Your task to perform on an android device: turn on sleep mode Image 0: 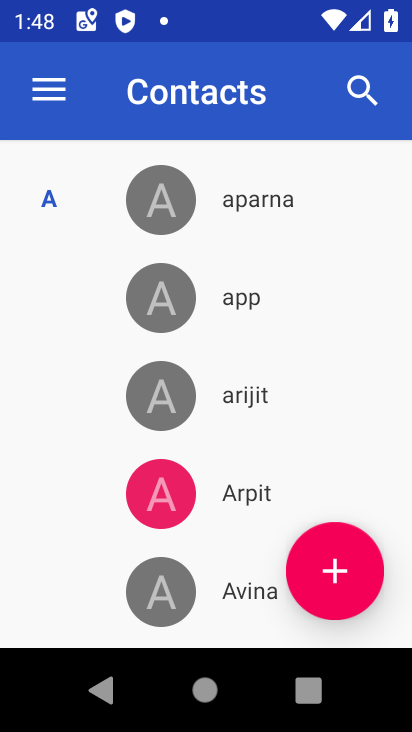
Step 0: press home button
Your task to perform on an android device: turn on sleep mode Image 1: 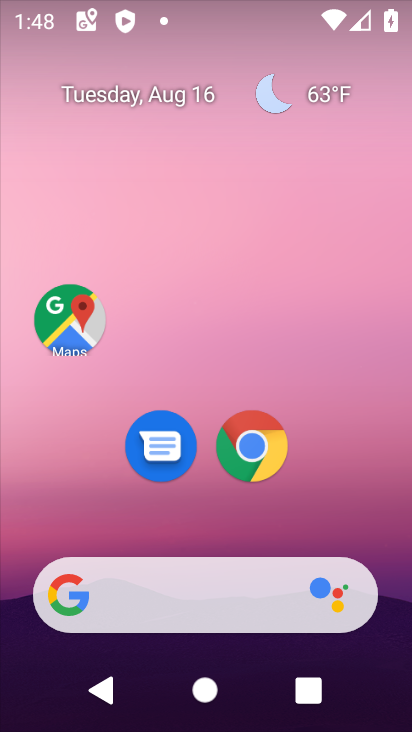
Step 1: drag from (204, 521) to (215, 18)
Your task to perform on an android device: turn on sleep mode Image 2: 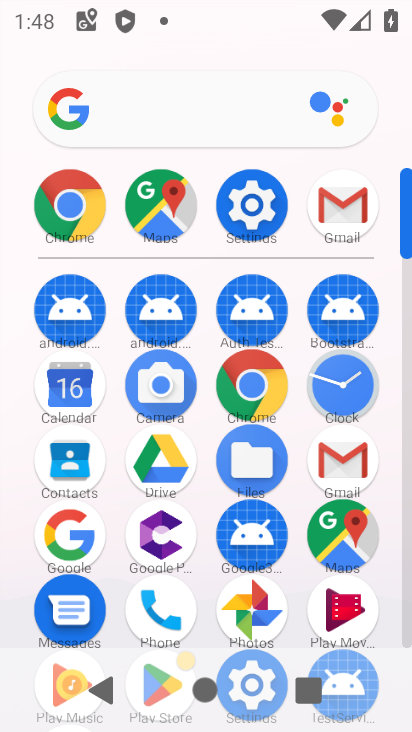
Step 2: click (247, 198)
Your task to perform on an android device: turn on sleep mode Image 3: 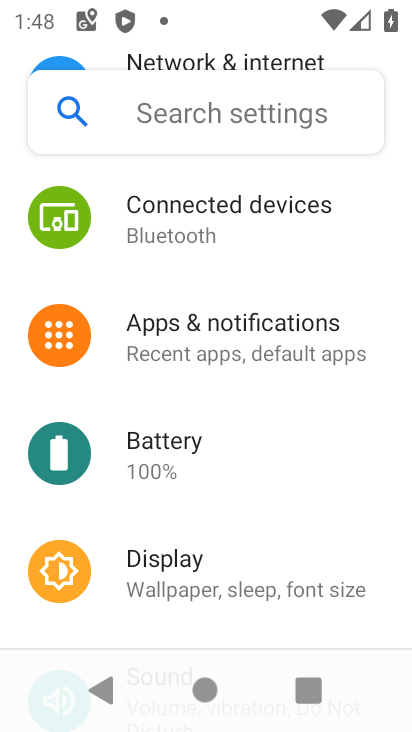
Step 3: click (106, 563)
Your task to perform on an android device: turn on sleep mode Image 4: 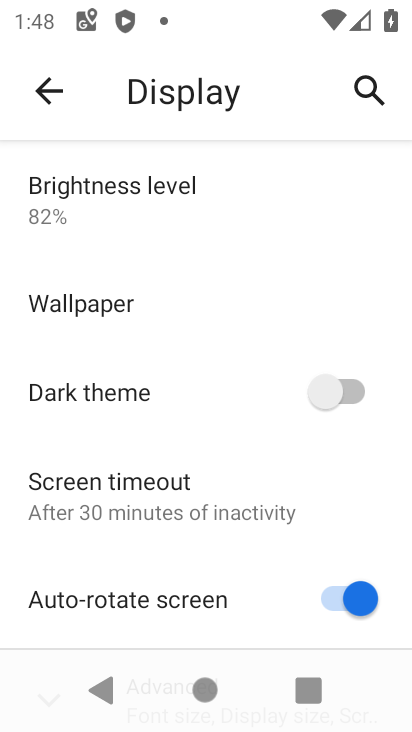
Step 4: drag from (149, 543) to (164, 207)
Your task to perform on an android device: turn on sleep mode Image 5: 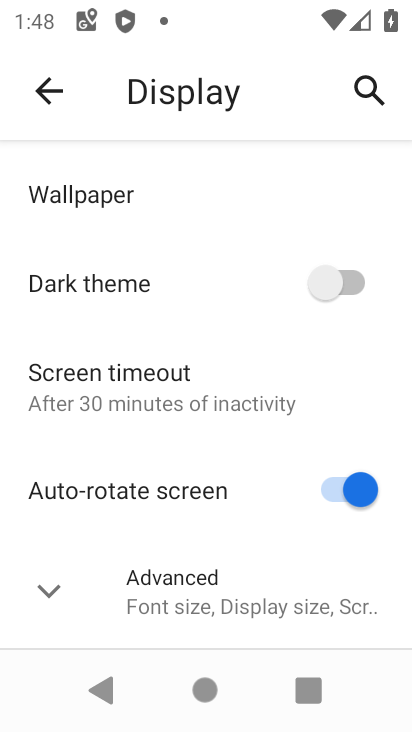
Step 5: click (59, 575)
Your task to perform on an android device: turn on sleep mode Image 6: 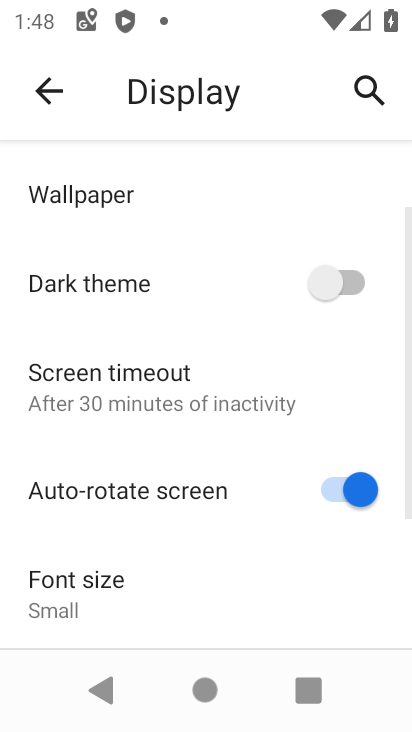
Step 6: task complete